Your task to perform on an android device: Open settings on Google Maps Image 0: 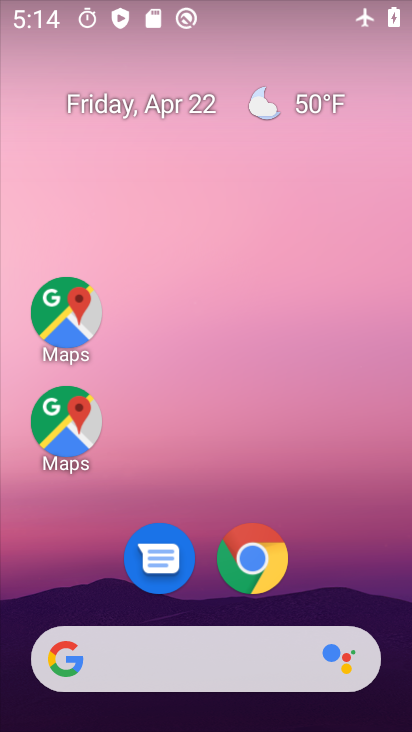
Step 0: drag from (321, 506) to (256, 218)
Your task to perform on an android device: Open settings on Google Maps Image 1: 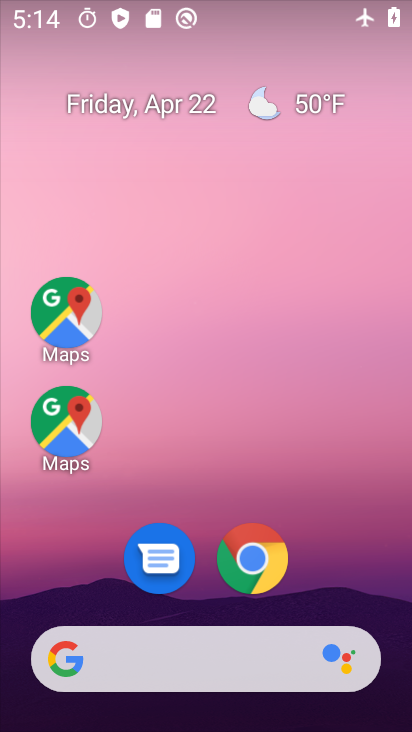
Step 1: drag from (317, 582) to (326, 235)
Your task to perform on an android device: Open settings on Google Maps Image 2: 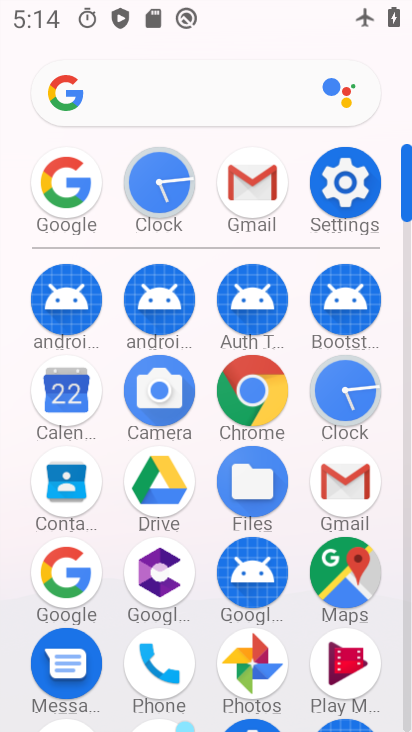
Step 2: click (332, 584)
Your task to perform on an android device: Open settings on Google Maps Image 3: 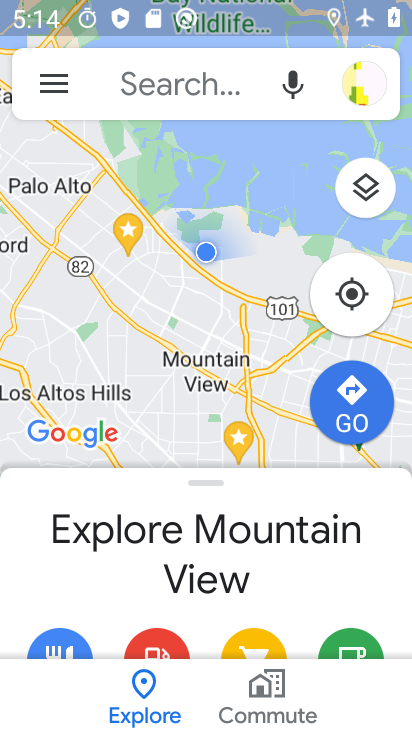
Step 3: task complete